Your task to perform on an android device: What's the weather going to be this weekend? Image 0: 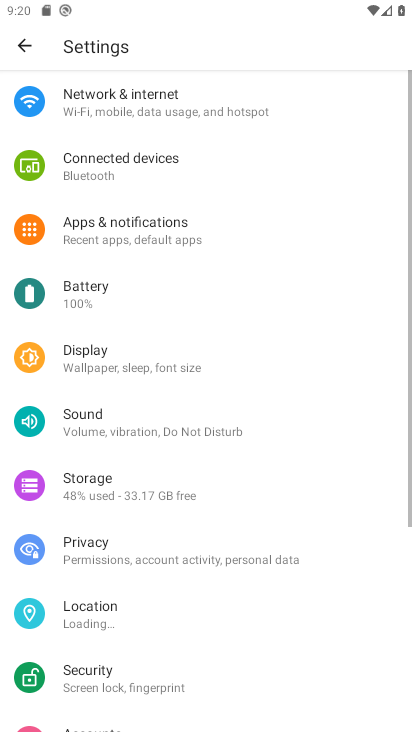
Step 0: press home button
Your task to perform on an android device: What's the weather going to be this weekend? Image 1: 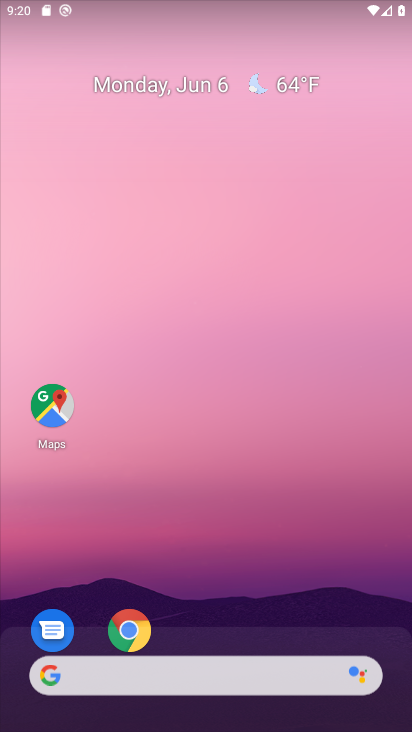
Step 1: click (167, 702)
Your task to perform on an android device: What's the weather going to be this weekend? Image 2: 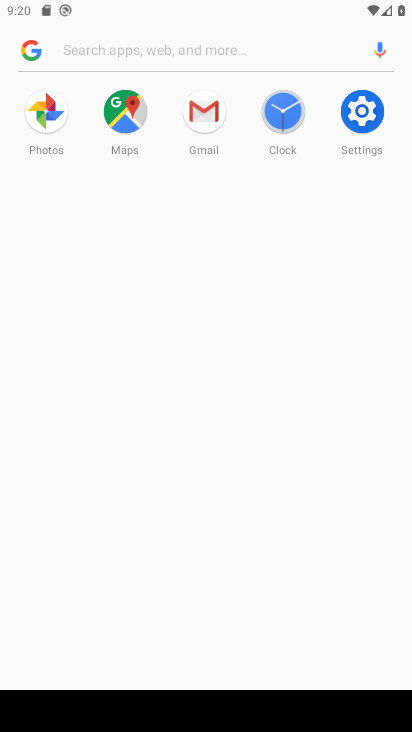
Step 2: type "weather this weekend"
Your task to perform on an android device: What's the weather going to be this weekend? Image 3: 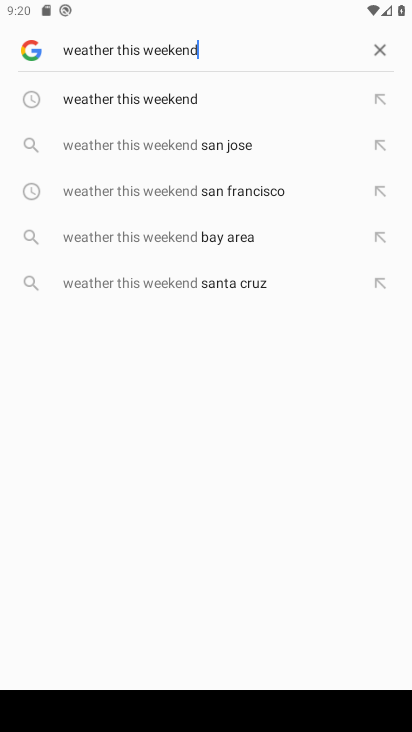
Step 3: click (163, 102)
Your task to perform on an android device: What's the weather going to be this weekend? Image 4: 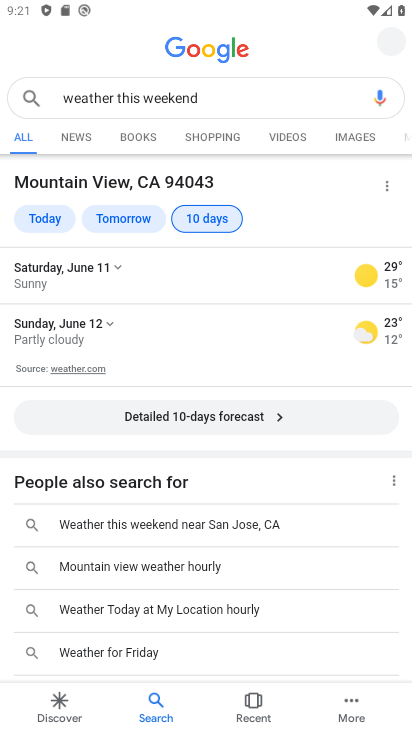
Step 4: click (197, 412)
Your task to perform on an android device: What's the weather going to be this weekend? Image 5: 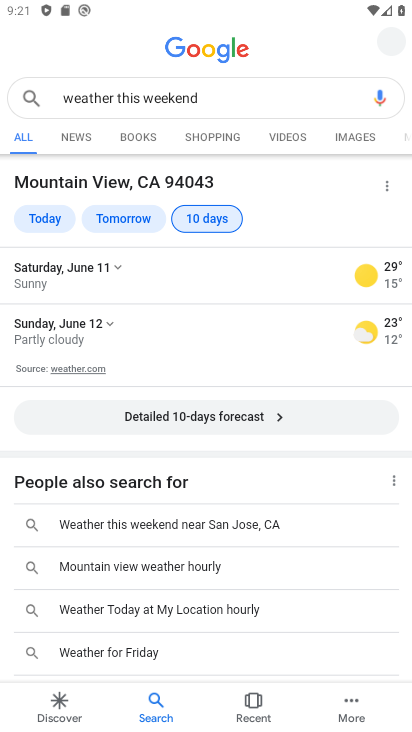
Step 5: click (263, 422)
Your task to perform on an android device: What's the weather going to be this weekend? Image 6: 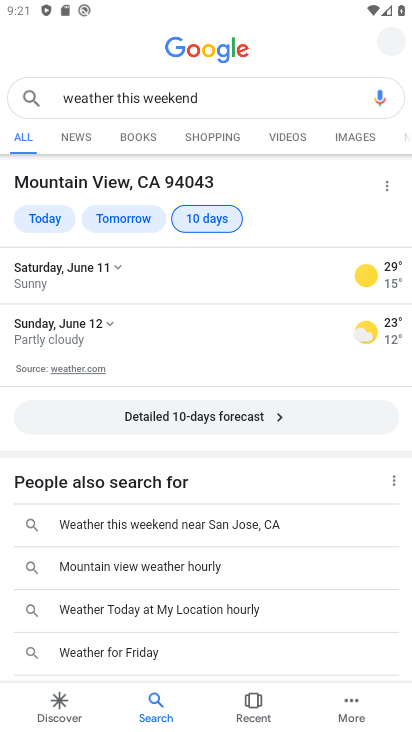
Step 6: click (244, 415)
Your task to perform on an android device: What's the weather going to be this weekend? Image 7: 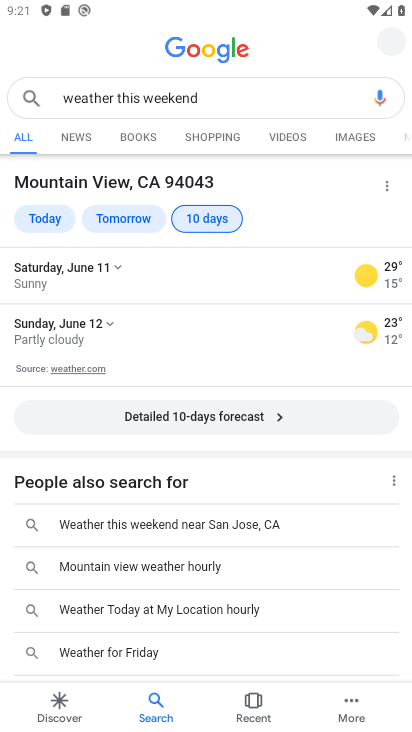
Step 7: task complete